Your task to perform on an android device: toggle notification dots Image 0: 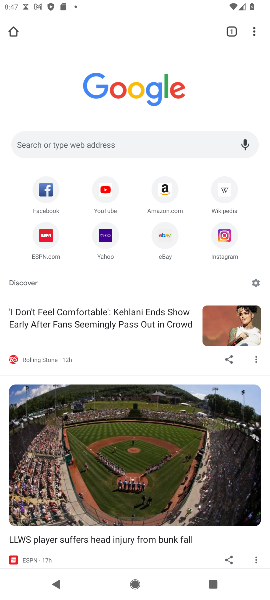
Step 0: press home button
Your task to perform on an android device: toggle notification dots Image 1: 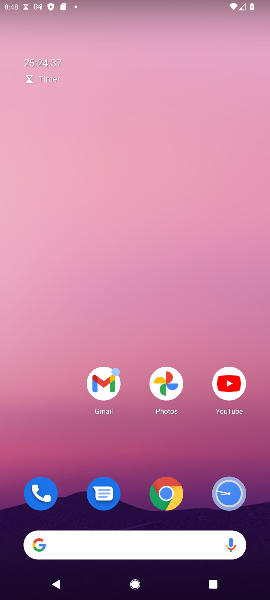
Step 1: drag from (116, 474) to (187, 30)
Your task to perform on an android device: toggle notification dots Image 2: 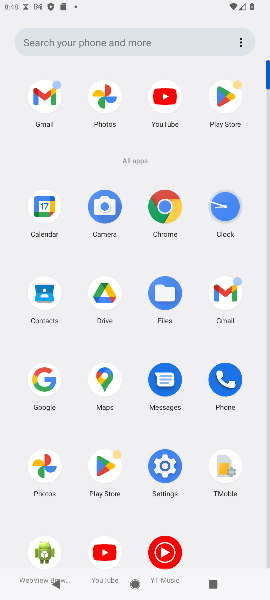
Step 2: click (157, 464)
Your task to perform on an android device: toggle notification dots Image 3: 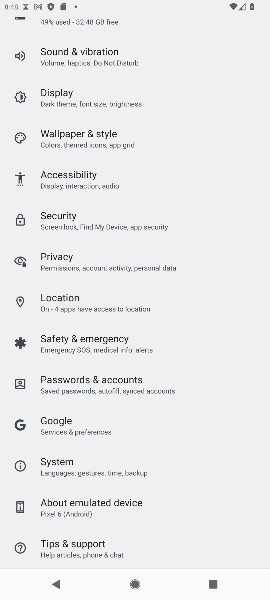
Step 3: drag from (132, 112) to (93, 418)
Your task to perform on an android device: toggle notification dots Image 4: 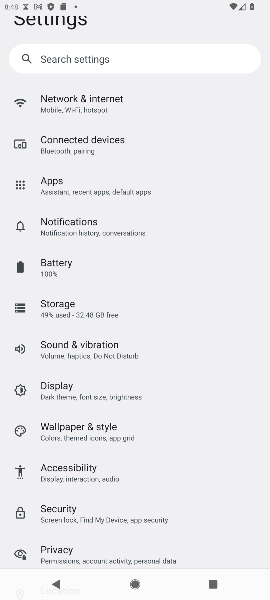
Step 4: click (87, 228)
Your task to perform on an android device: toggle notification dots Image 5: 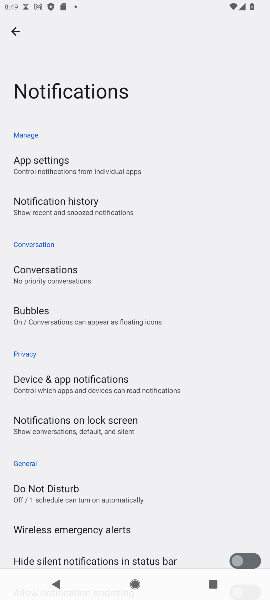
Step 5: drag from (67, 500) to (59, 182)
Your task to perform on an android device: toggle notification dots Image 6: 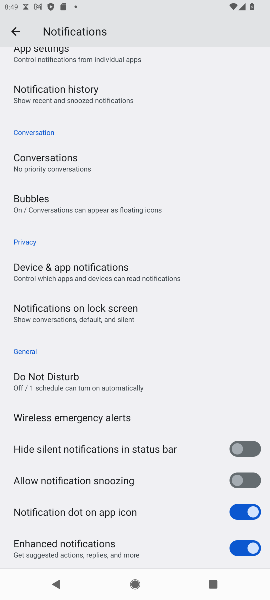
Step 6: click (251, 510)
Your task to perform on an android device: toggle notification dots Image 7: 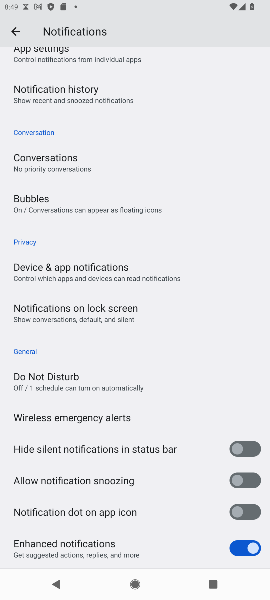
Step 7: task complete